Your task to perform on an android device: Open settings Image 0: 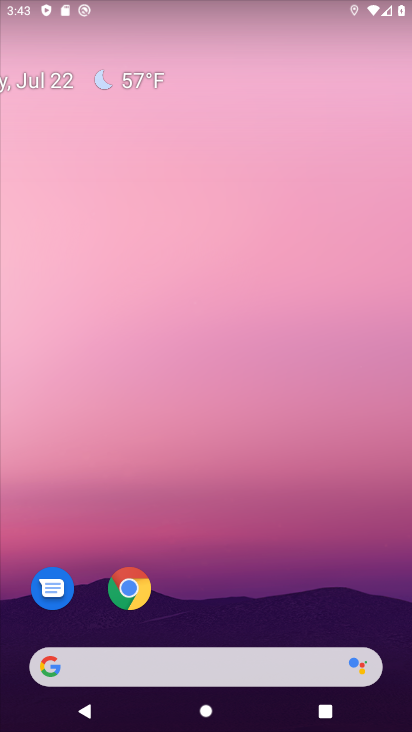
Step 0: drag from (212, 635) to (222, 113)
Your task to perform on an android device: Open settings Image 1: 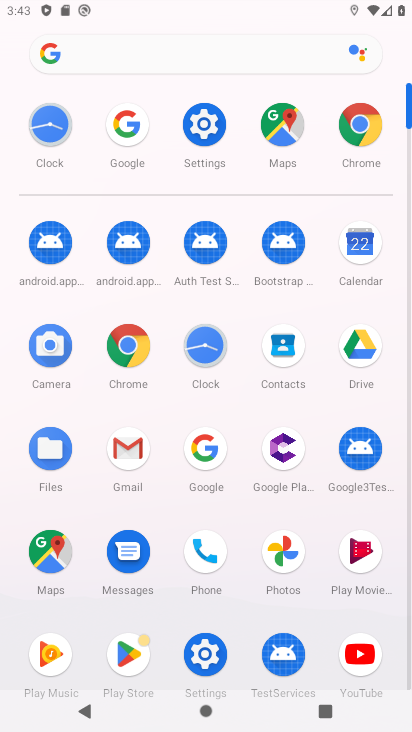
Step 1: click (215, 650)
Your task to perform on an android device: Open settings Image 2: 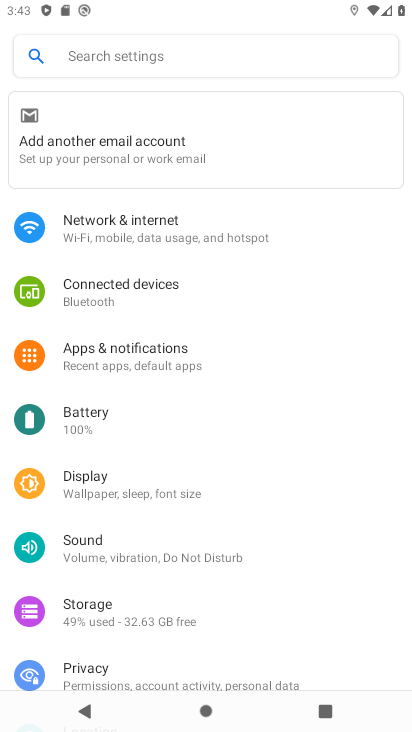
Step 2: task complete